Your task to perform on an android device: open the mobile data screen to see how much data has been used Image 0: 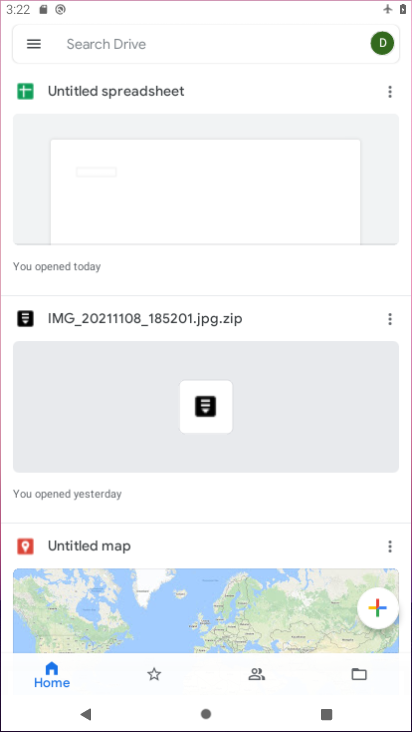
Step 0: drag from (286, 604) to (176, 41)
Your task to perform on an android device: open the mobile data screen to see how much data has been used Image 1: 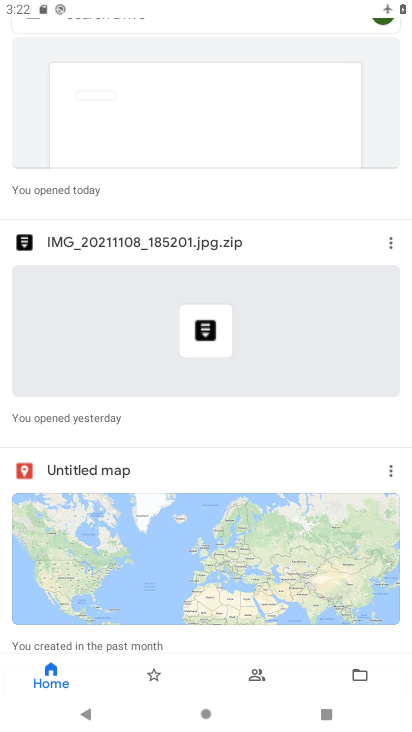
Step 1: press home button
Your task to perform on an android device: open the mobile data screen to see how much data has been used Image 2: 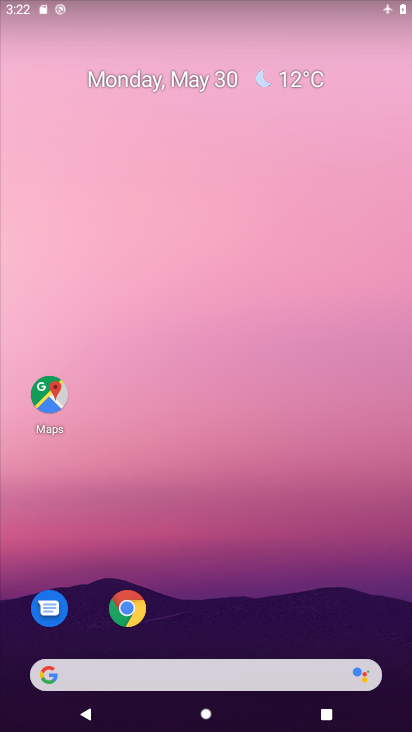
Step 2: drag from (292, 563) to (166, 8)
Your task to perform on an android device: open the mobile data screen to see how much data has been used Image 3: 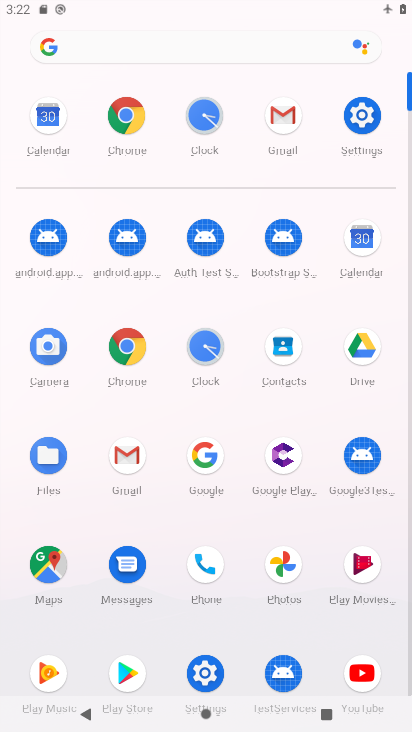
Step 3: click (353, 112)
Your task to perform on an android device: open the mobile data screen to see how much data has been used Image 4: 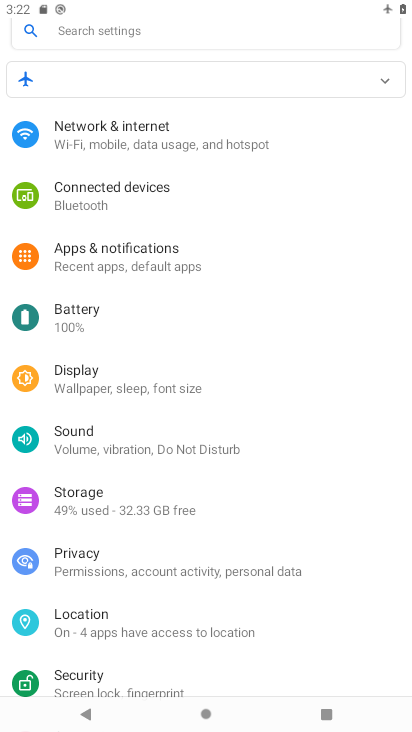
Step 4: click (168, 131)
Your task to perform on an android device: open the mobile data screen to see how much data has been used Image 5: 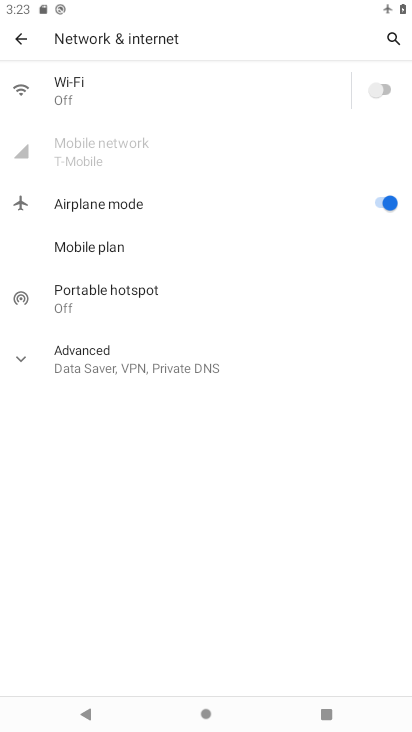
Step 5: click (379, 80)
Your task to perform on an android device: open the mobile data screen to see how much data has been used Image 6: 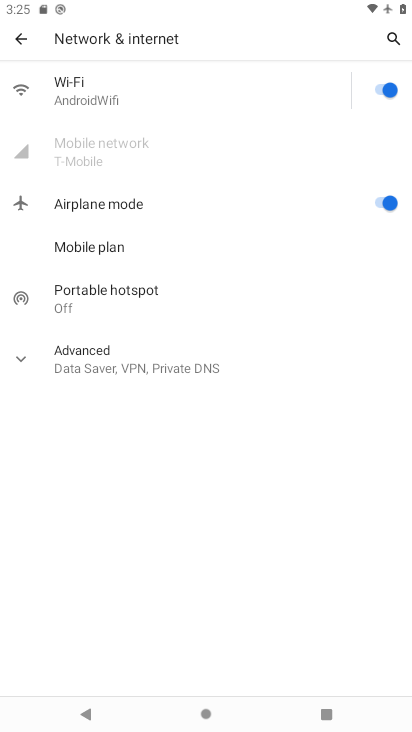
Step 6: task complete